Your task to perform on an android device: Search for Italian restaurants on Maps Image 0: 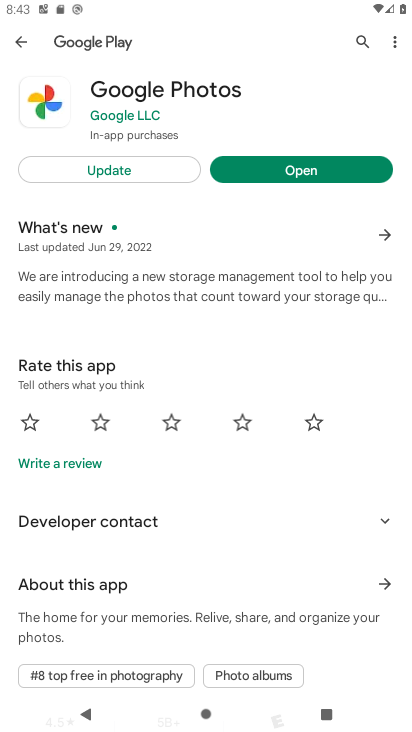
Step 0: press home button
Your task to perform on an android device: Search for Italian restaurants on Maps Image 1: 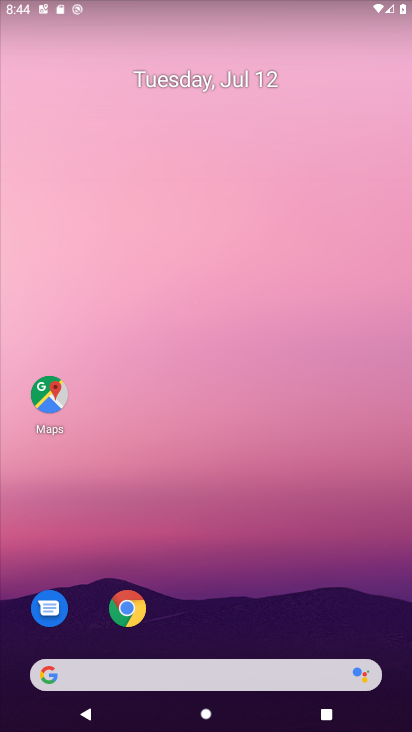
Step 1: click (46, 389)
Your task to perform on an android device: Search for Italian restaurants on Maps Image 2: 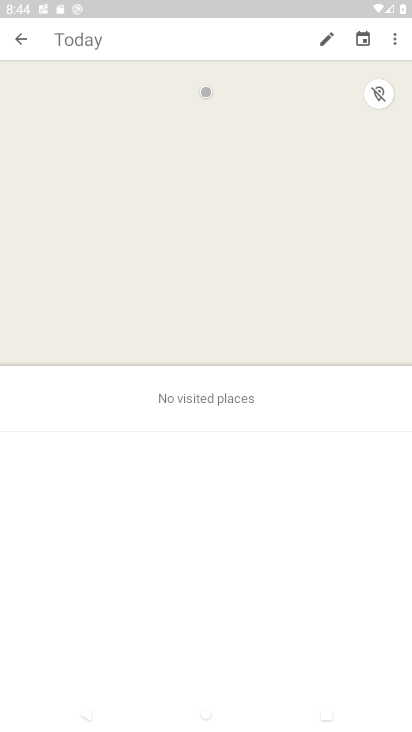
Step 2: click (16, 33)
Your task to perform on an android device: Search for Italian restaurants on Maps Image 3: 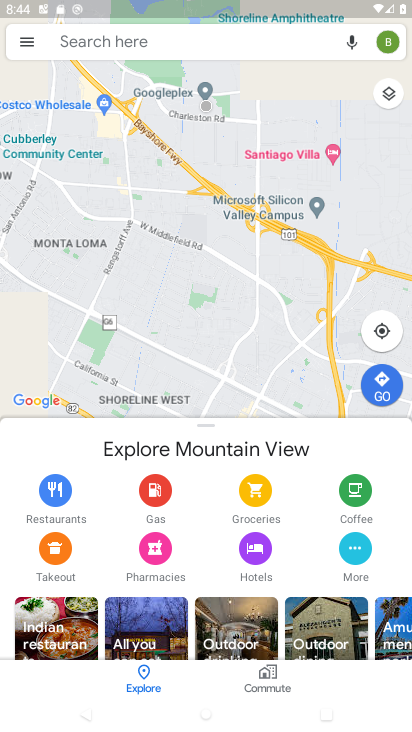
Step 3: click (109, 43)
Your task to perform on an android device: Search for Italian restaurants on Maps Image 4: 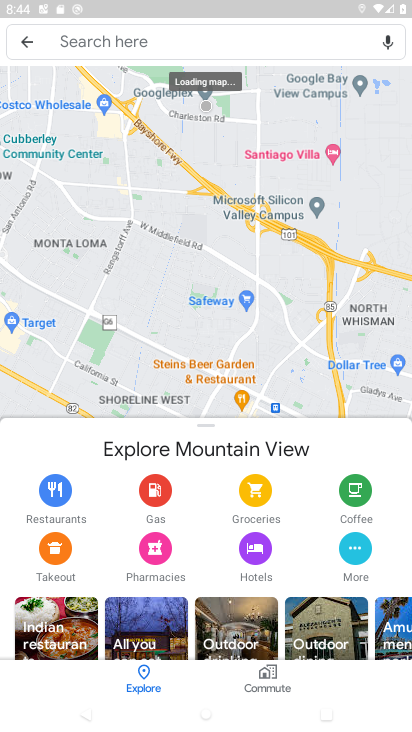
Step 4: click (144, 32)
Your task to perform on an android device: Search for Italian restaurants on Maps Image 5: 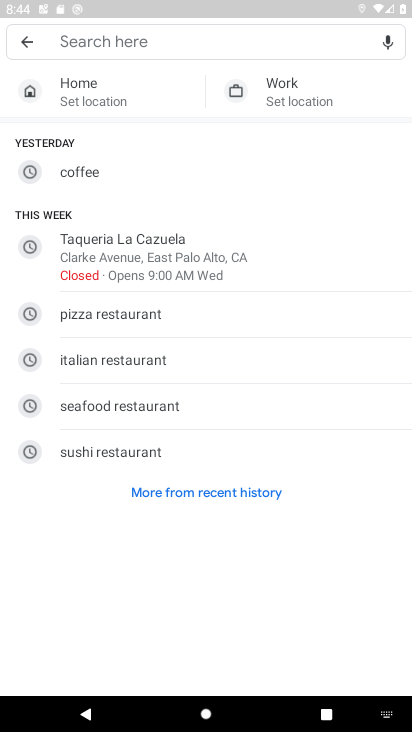
Step 5: click (122, 359)
Your task to perform on an android device: Search for Italian restaurants on Maps Image 6: 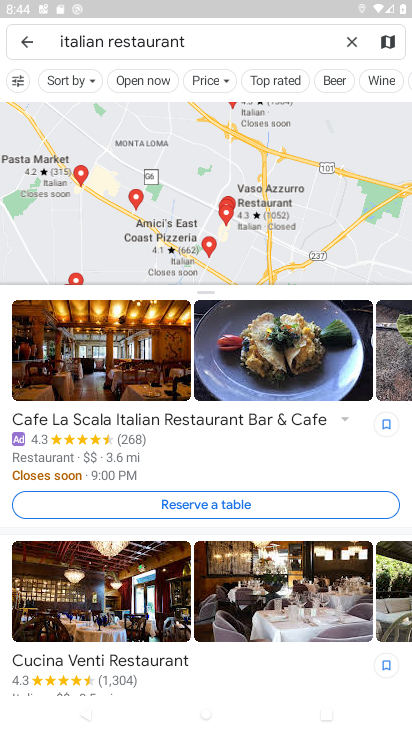
Step 6: task complete